Your task to perform on an android device: Open Youtube and go to the subscriptions tab Image 0: 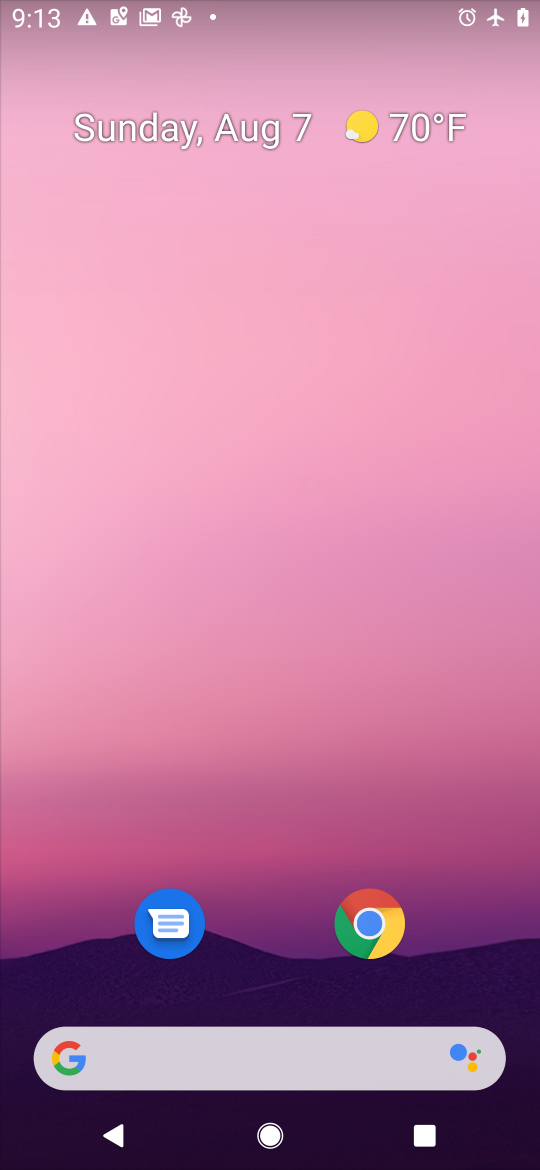
Step 0: press home button
Your task to perform on an android device: Open Youtube and go to the subscriptions tab Image 1: 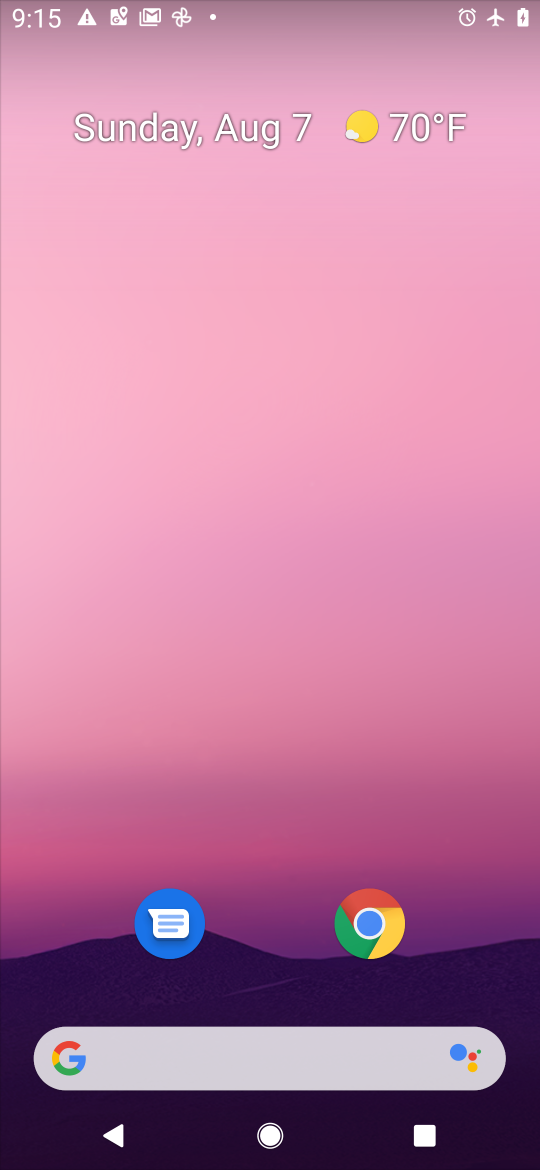
Step 1: drag from (483, 928) to (302, 3)
Your task to perform on an android device: Open Youtube and go to the subscriptions tab Image 2: 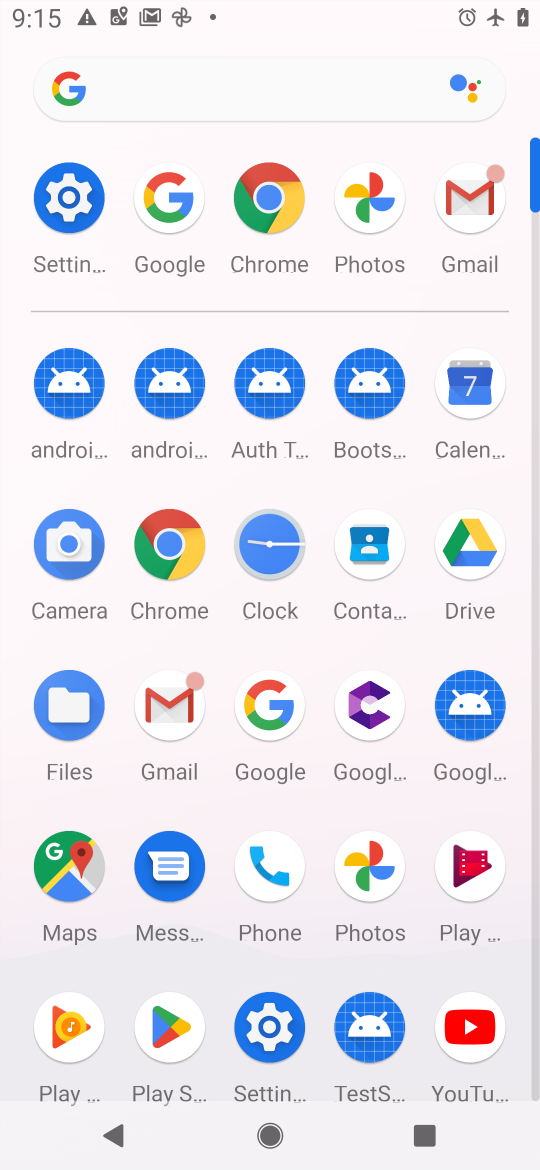
Step 2: click (453, 1020)
Your task to perform on an android device: Open Youtube and go to the subscriptions tab Image 3: 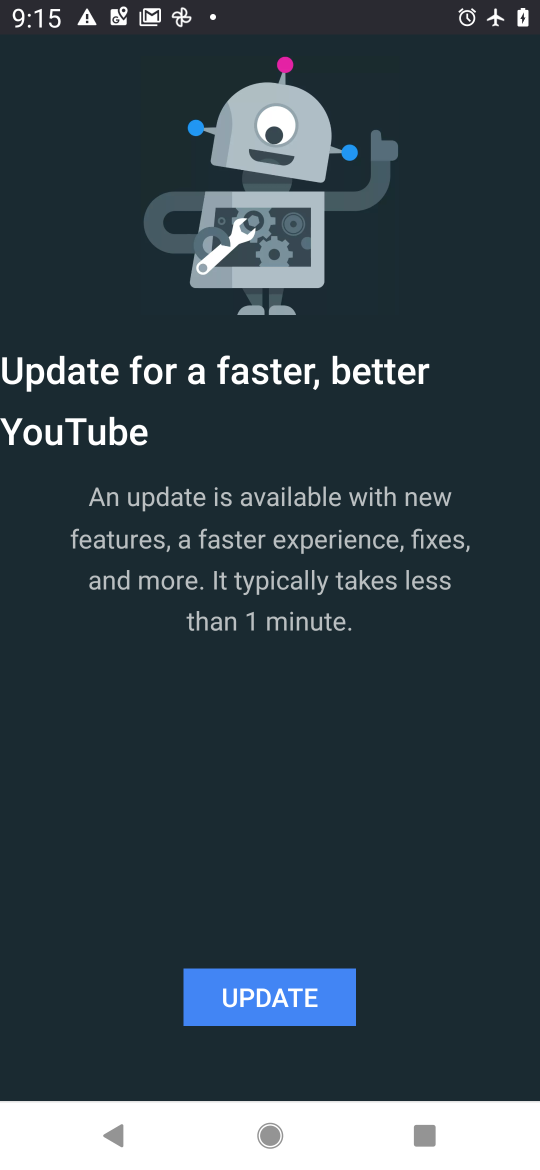
Step 3: task complete